Your task to perform on an android device: Go to Wikipedia Image 0: 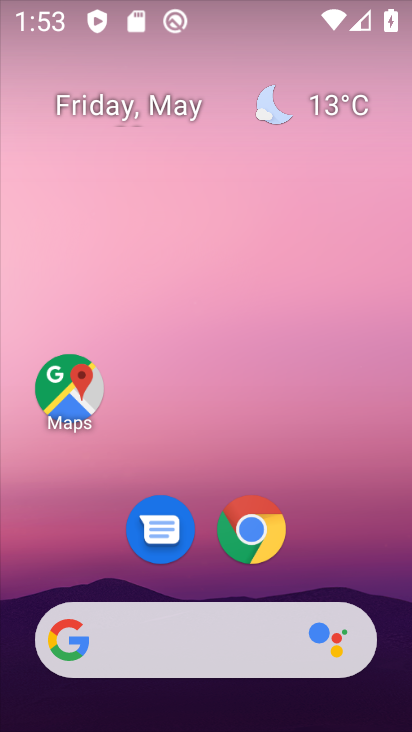
Step 0: press home button
Your task to perform on an android device: Go to Wikipedia Image 1: 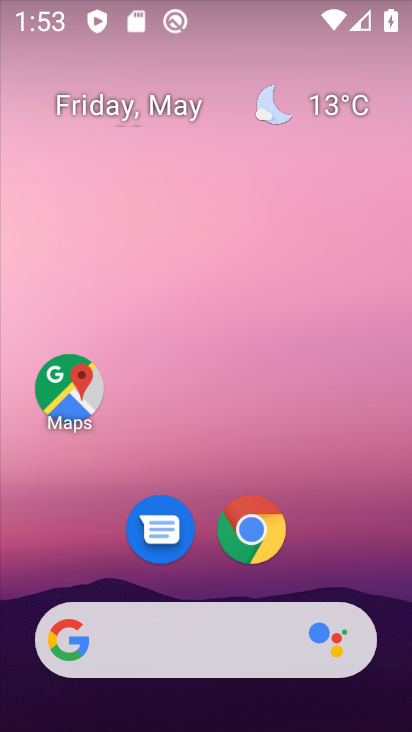
Step 1: drag from (336, 508) to (338, 59)
Your task to perform on an android device: Go to Wikipedia Image 2: 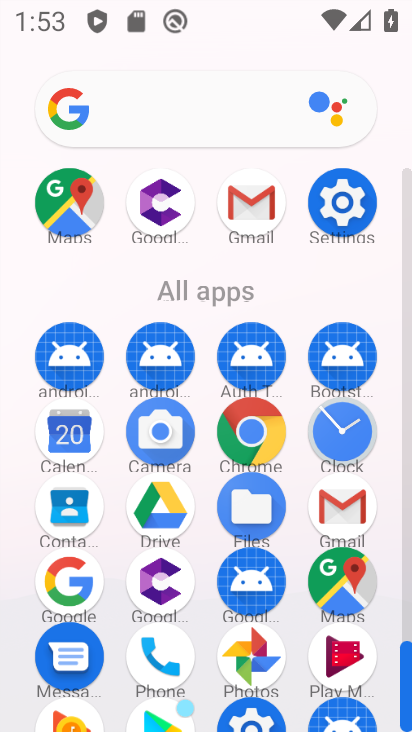
Step 2: click (266, 437)
Your task to perform on an android device: Go to Wikipedia Image 3: 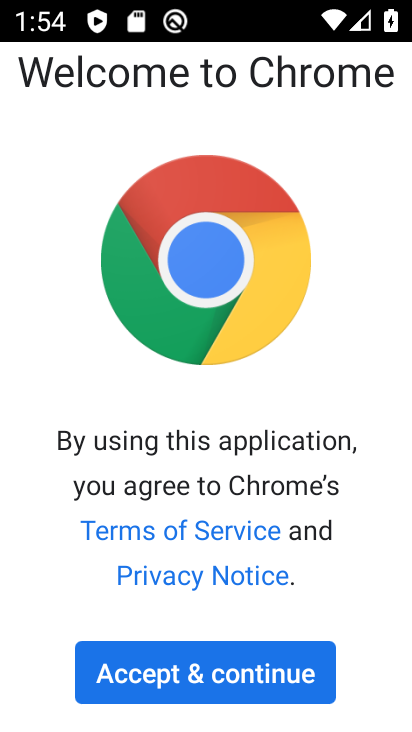
Step 3: click (264, 663)
Your task to perform on an android device: Go to Wikipedia Image 4: 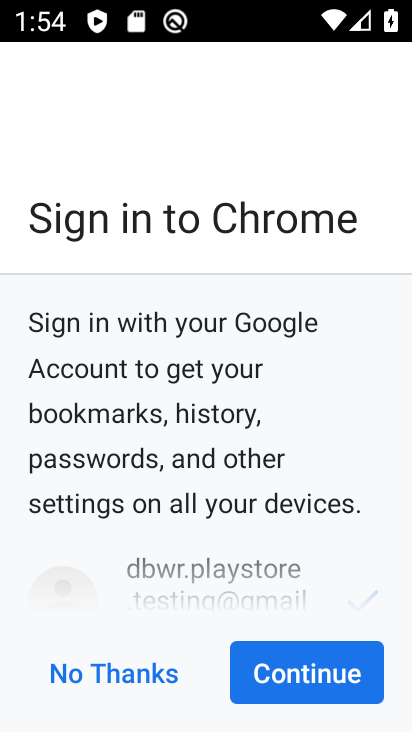
Step 4: click (277, 678)
Your task to perform on an android device: Go to Wikipedia Image 5: 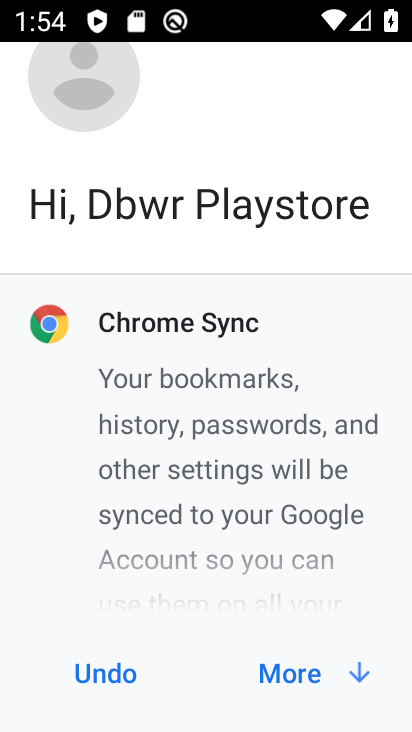
Step 5: click (271, 672)
Your task to perform on an android device: Go to Wikipedia Image 6: 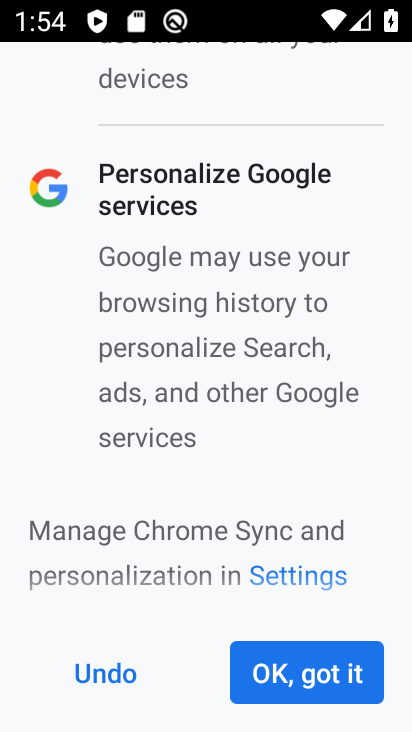
Step 6: click (271, 670)
Your task to perform on an android device: Go to Wikipedia Image 7: 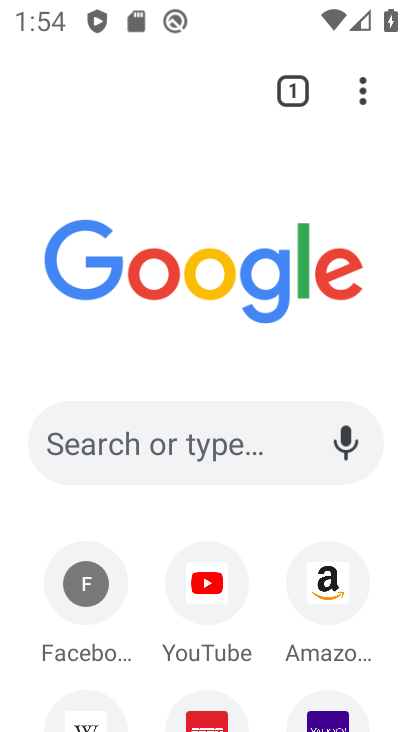
Step 7: drag from (262, 610) to (248, 304)
Your task to perform on an android device: Go to Wikipedia Image 8: 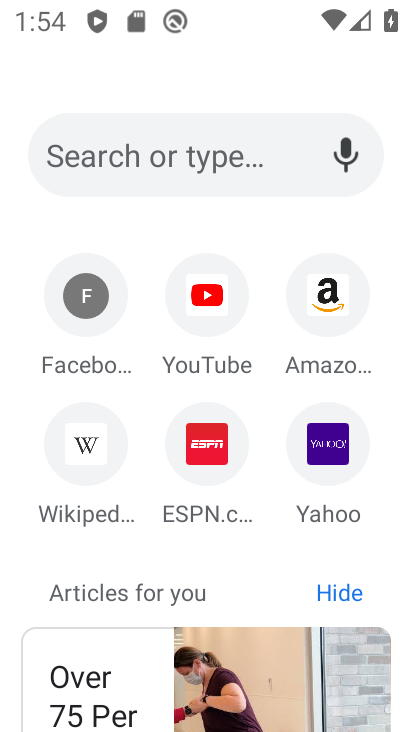
Step 8: click (80, 453)
Your task to perform on an android device: Go to Wikipedia Image 9: 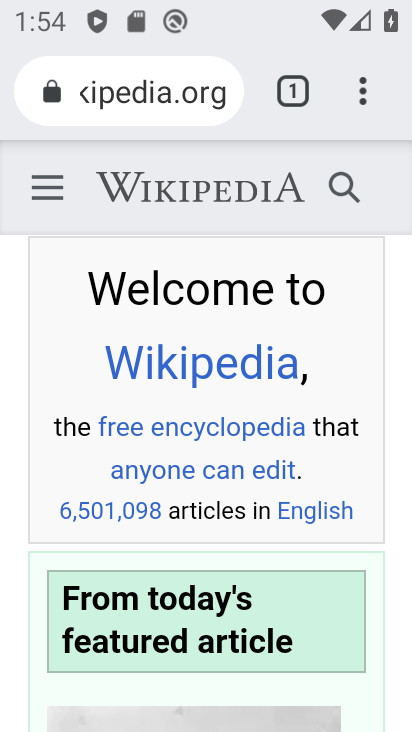
Step 9: task complete